Your task to perform on an android device: Clear the shopping cart on costco. Image 0: 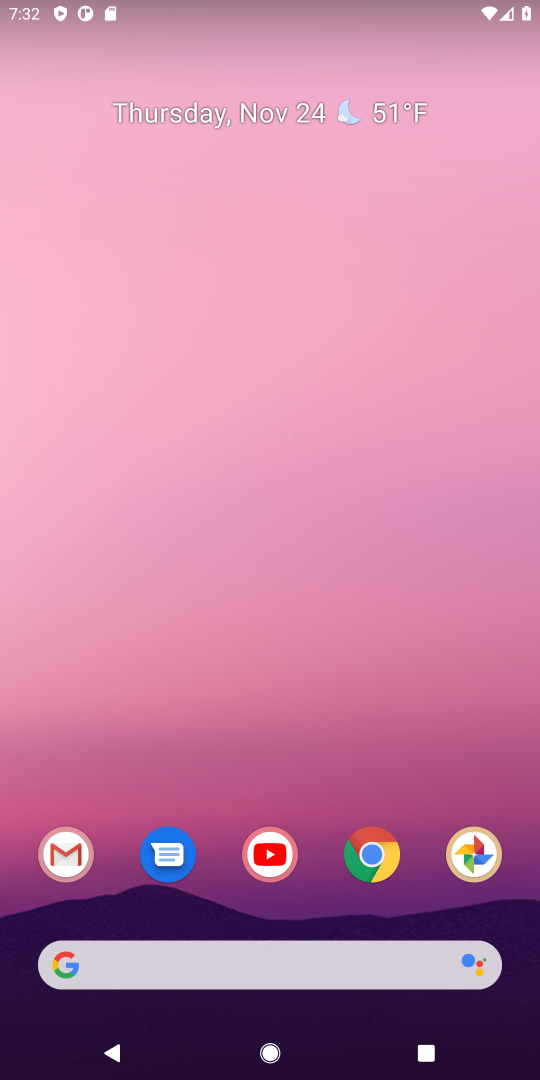
Step 0: click (349, 863)
Your task to perform on an android device: Clear the shopping cart on costco. Image 1: 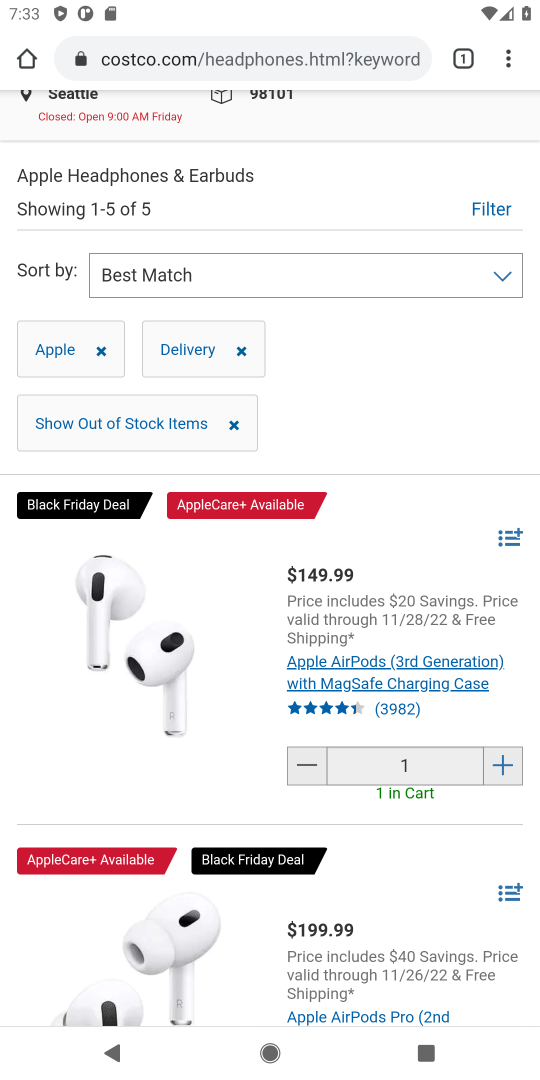
Step 1: drag from (386, 381) to (356, 569)
Your task to perform on an android device: Clear the shopping cart on costco. Image 2: 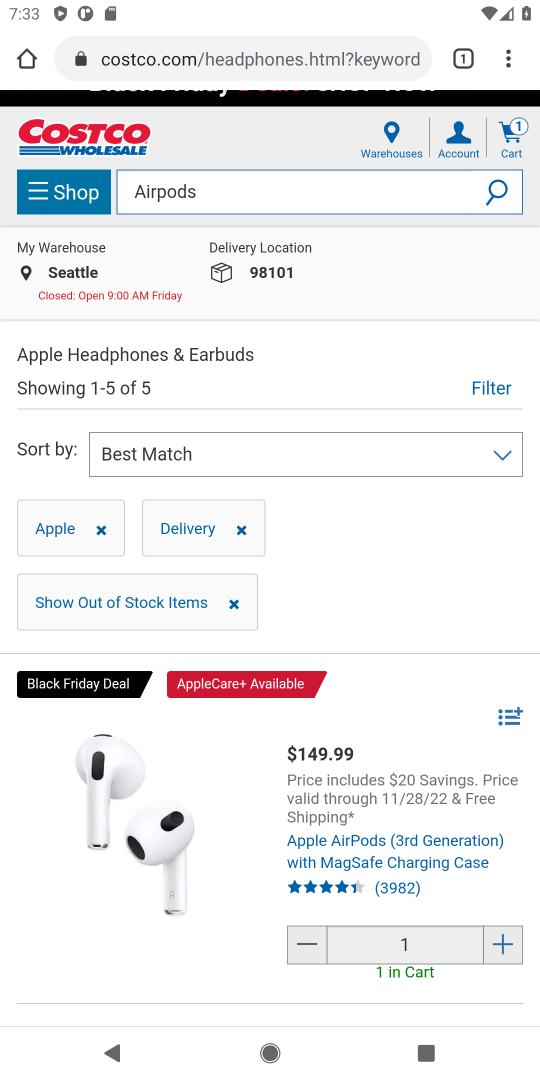
Step 2: click (512, 144)
Your task to perform on an android device: Clear the shopping cart on costco. Image 3: 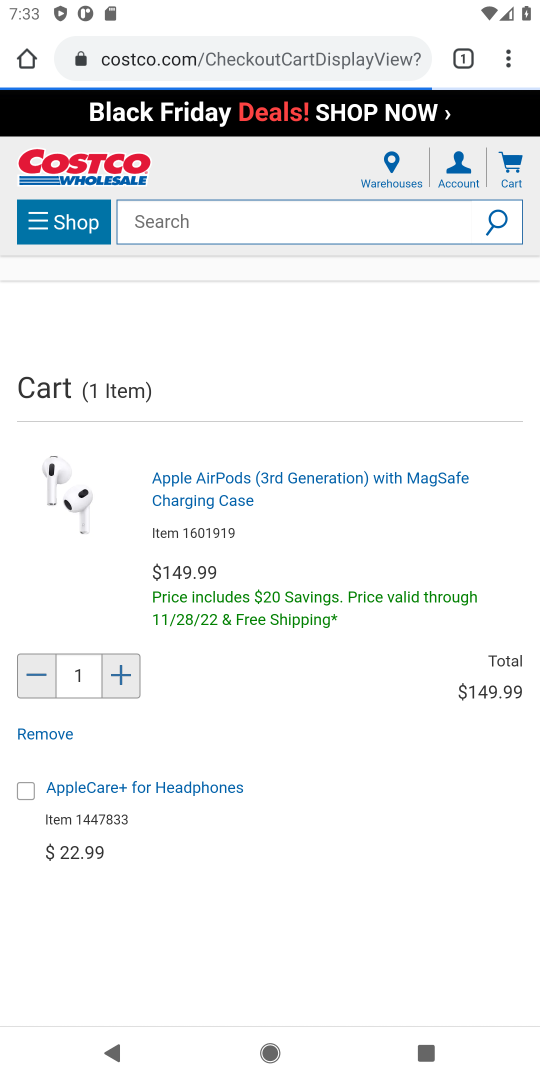
Step 3: click (512, 144)
Your task to perform on an android device: Clear the shopping cart on costco. Image 4: 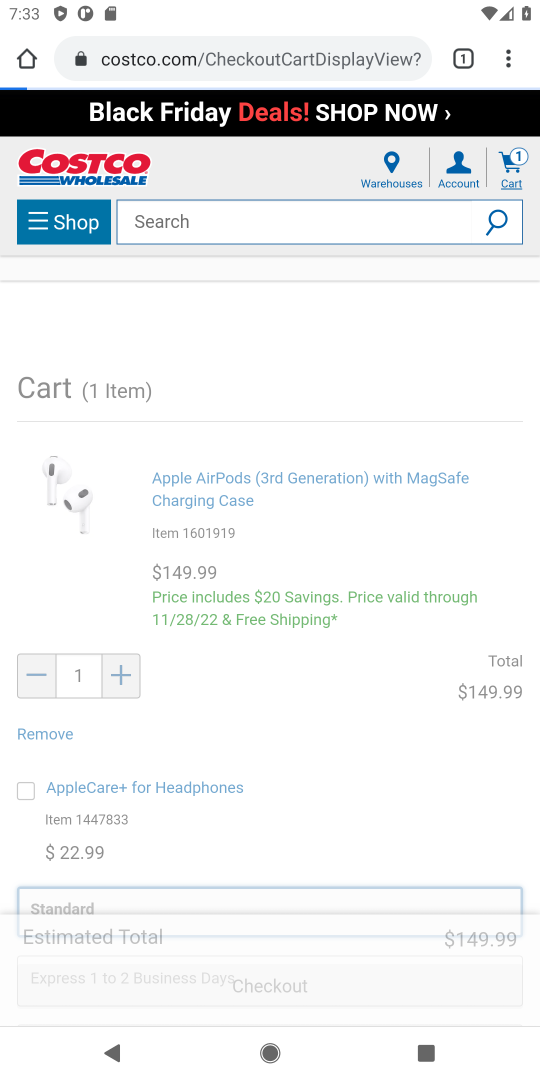
Step 4: drag from (221, 660) to (260, 351)
Your task to perform on an android device: Clear the shopping cart on costco. Image 5: 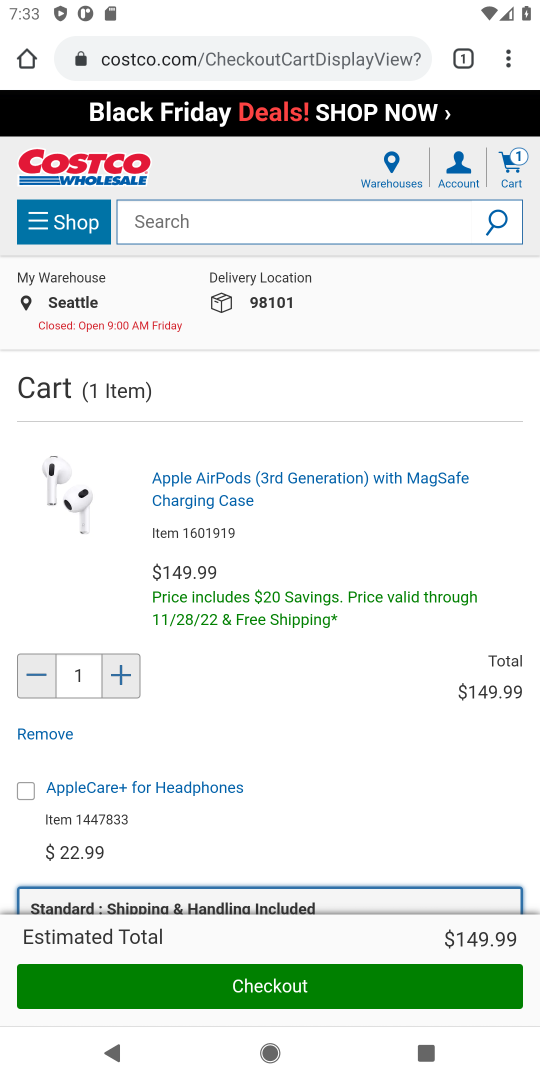
Step 5: click (43, 734)
Your task to perform on an android device: Clear the shopping cart on costco. Image 6: 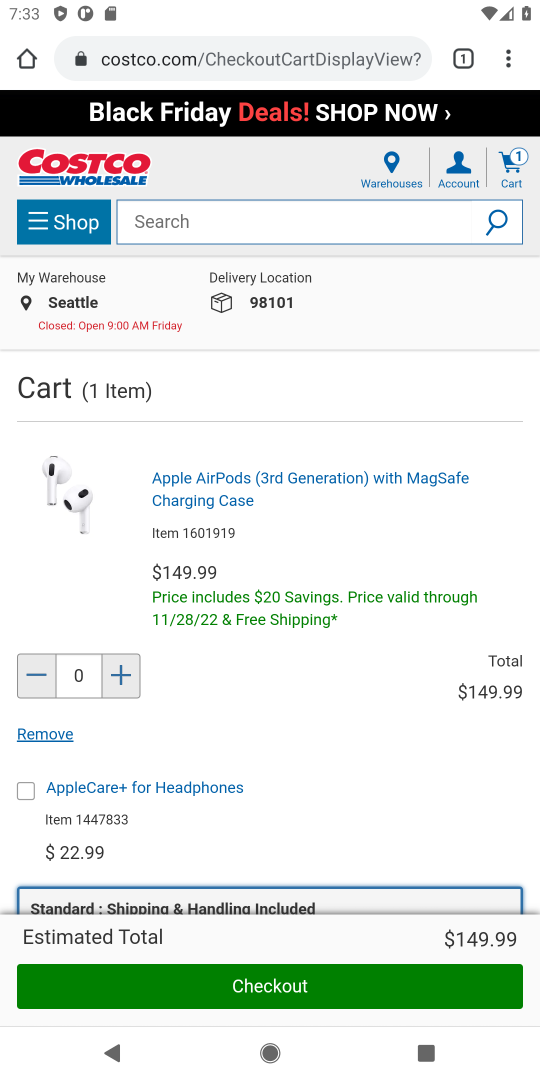
Step 6: drag from (281, 784) to (290, 391)
Your task to perform on an android device: Clear the shopping cart on costco. Image 7: 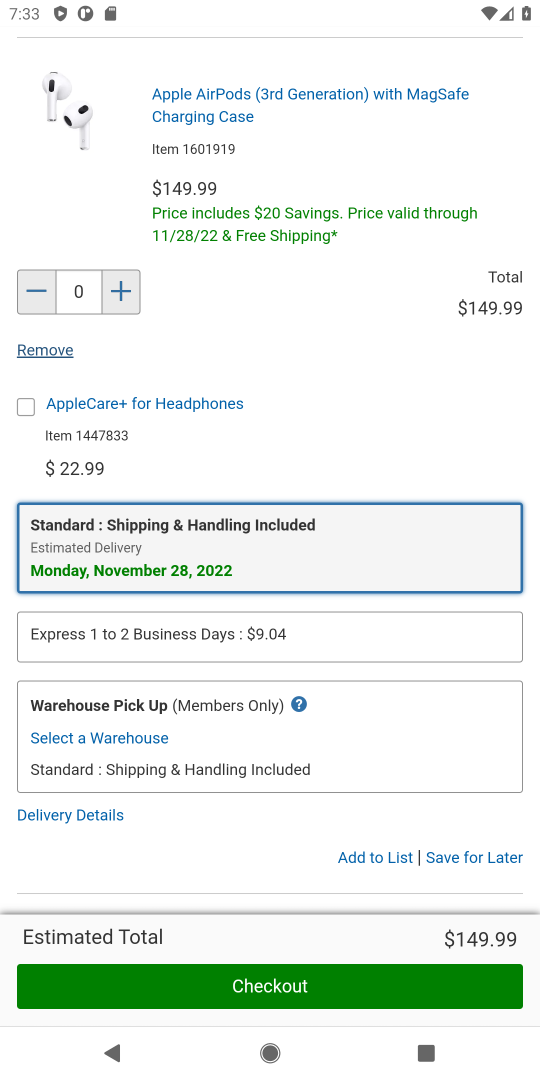
Step 7: drag from (341, 756) to (358, 570)
Your task to perform on an android device: Clear the shopping cart on costco. Image 8: 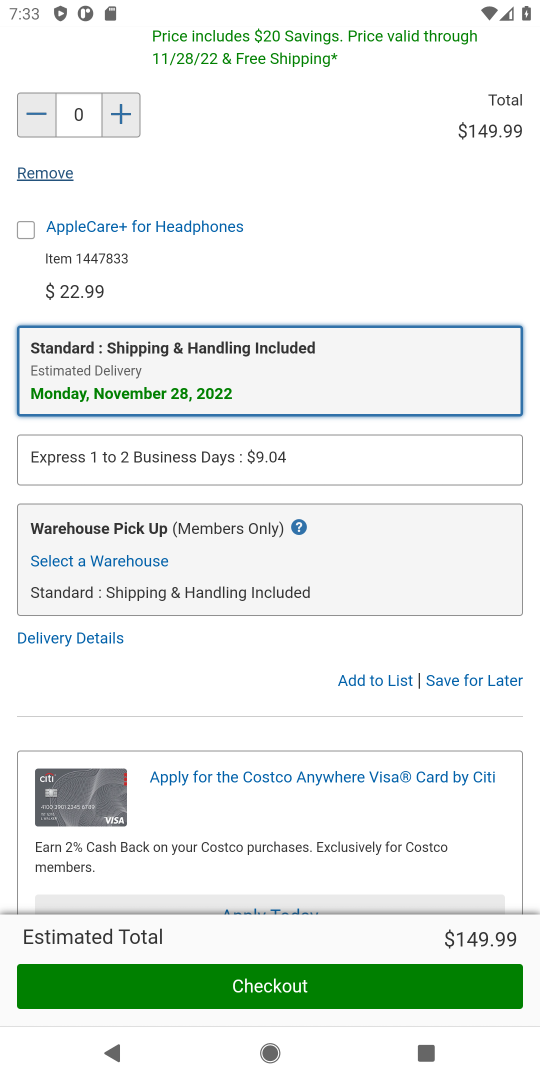
Step 8: click (469, 675)
Your task to perform on an android device: Clear the shopping cart on costco. Image 9: 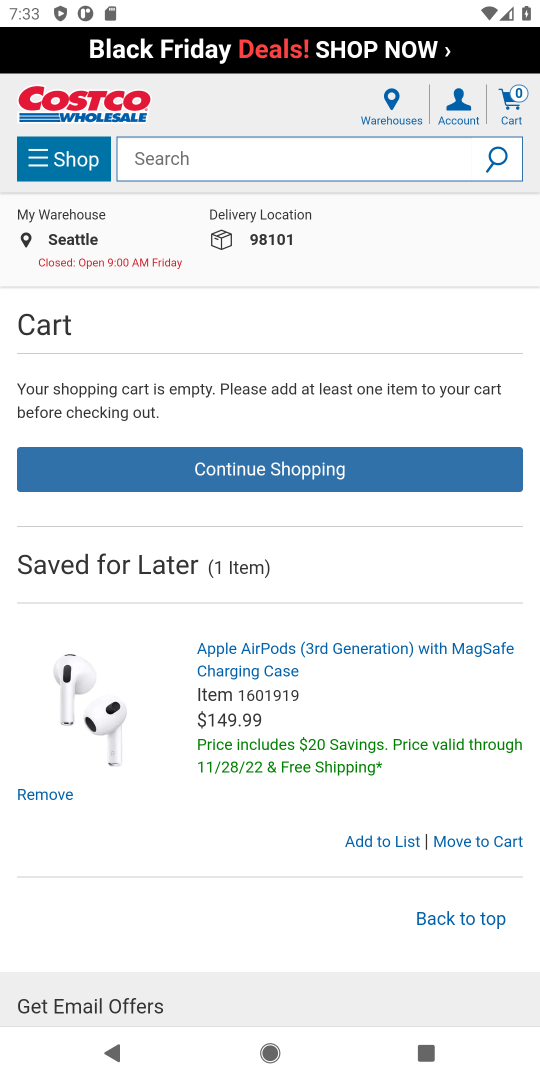
Step 9: task complete